Your task to perform on an android device: What's the weather going to be this weekend? Image 0: 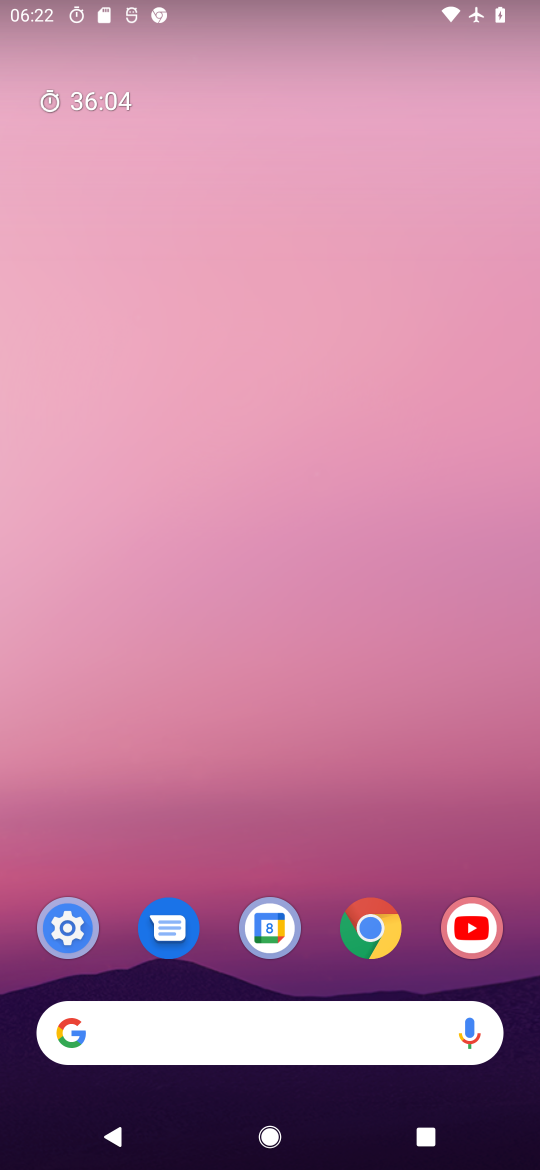
Step 0: drag from (222, 983) to (157, 70)
Your task to perform on an android device: What's the weather going to be this weekend? Image 1: 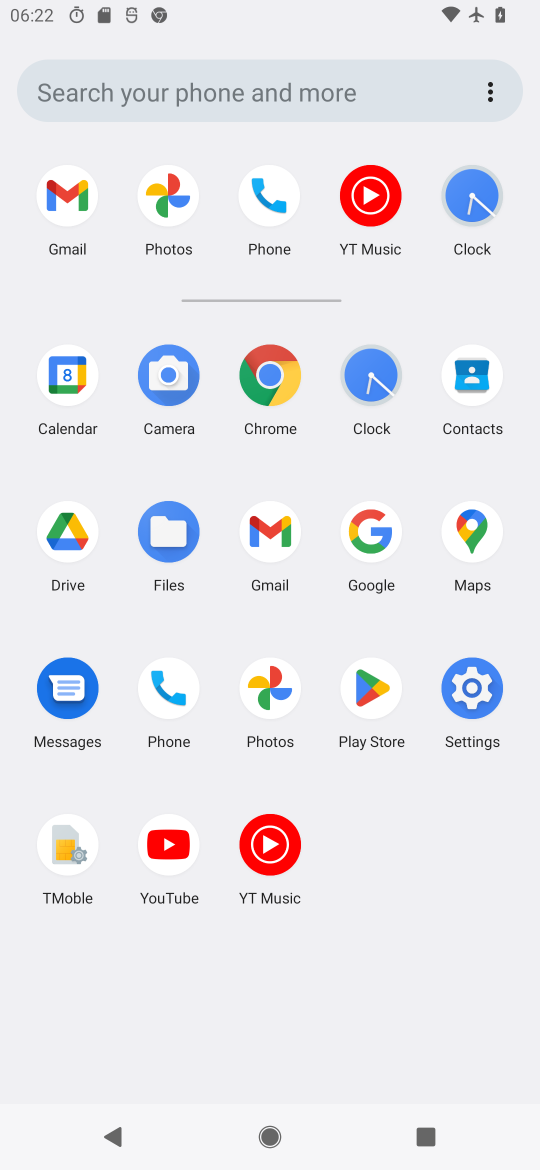
Step 1: click (189, 83)
Your task to perform on an android device: What's the weather going to be this weekend? Image 2: 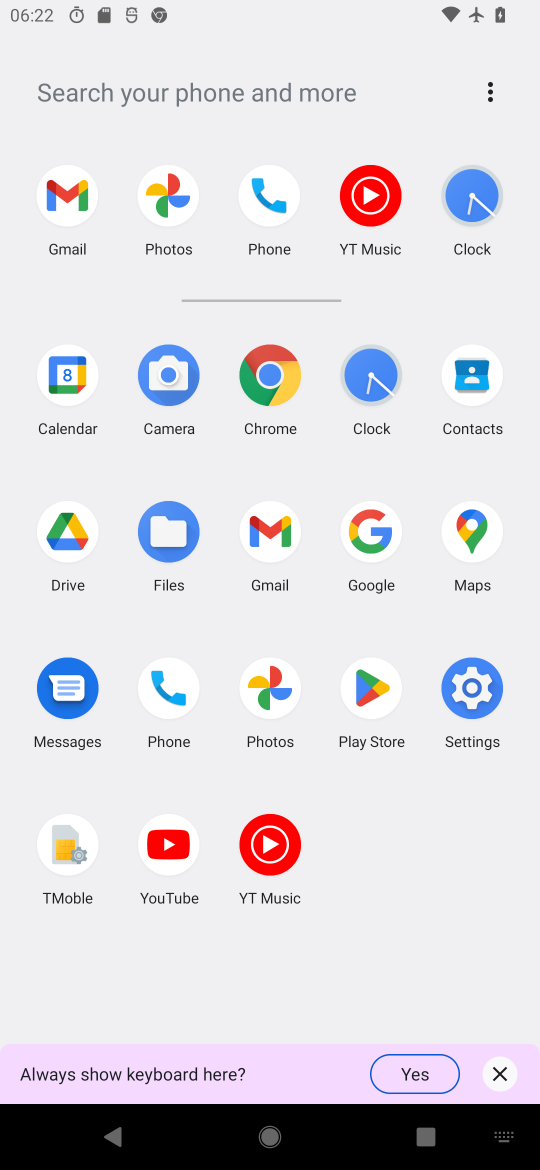
Step 2: type "weather"
Your task to perform on an android device: What's the weather going to be this weekend? Image 3: 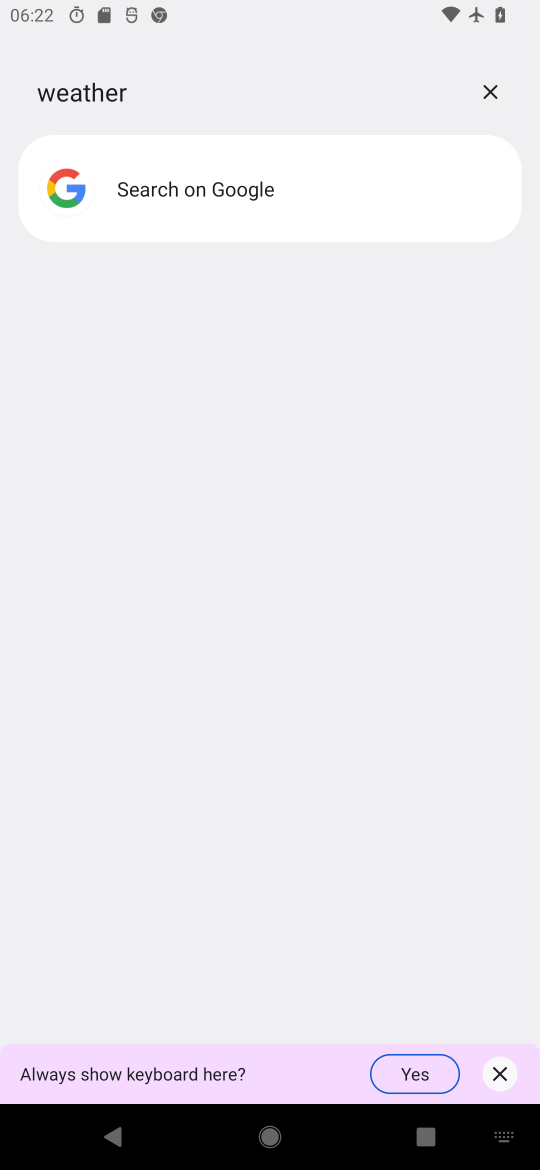
Step 3: click (220, 188)
Your task to perform on an android device: What's the weather going to be this weekend? Image 4: 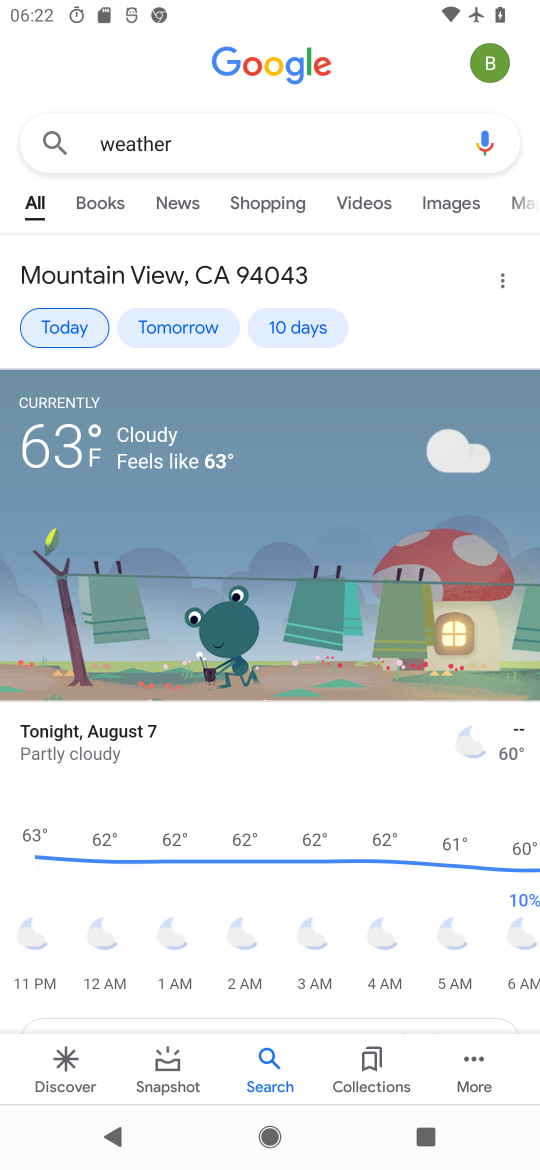
Step 4: task complete